Your task to perform on an android device: Show me recent news Image 0: 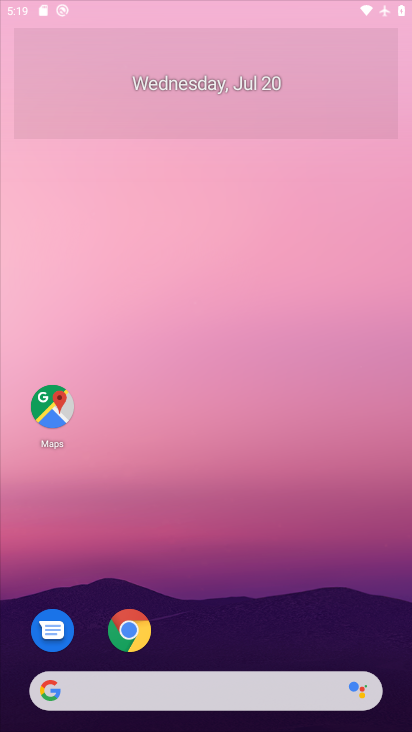
Step 0: press home button
Your task to perform on an android device: Show me recent news Image 1: 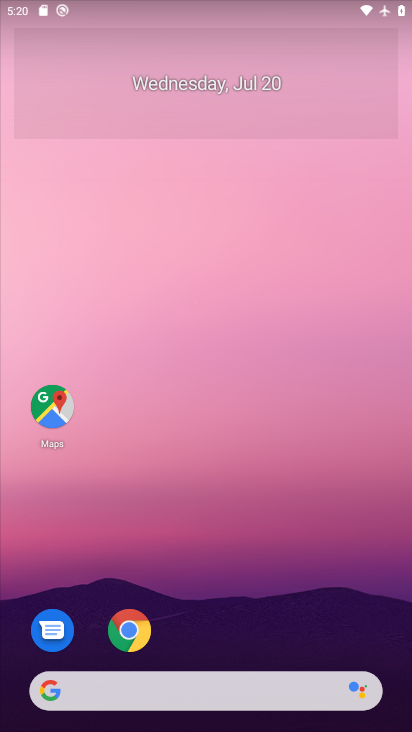
Step 1: click (30, 692)
Your task to perform on an android device: Show me recent news Image 2: 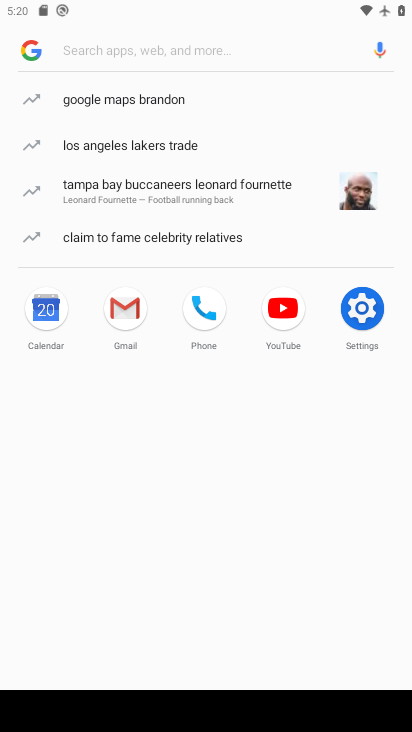
Step 2: type "recent news"
Your task to perform on an android device: Show me recent news Image 3: 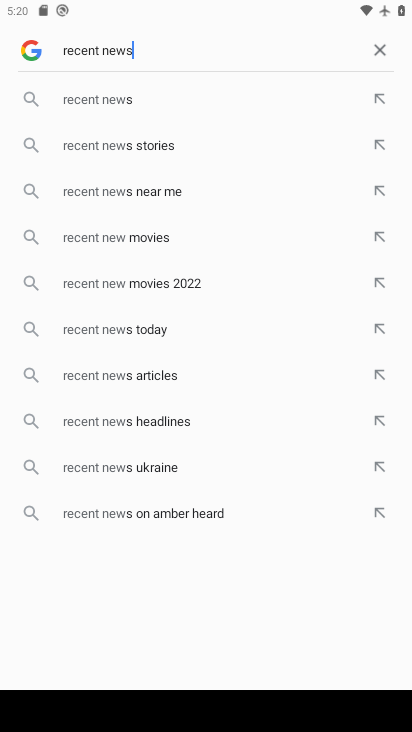
Step 3: press enter
Your task to perform on an android device: Show me recent news Image 4: 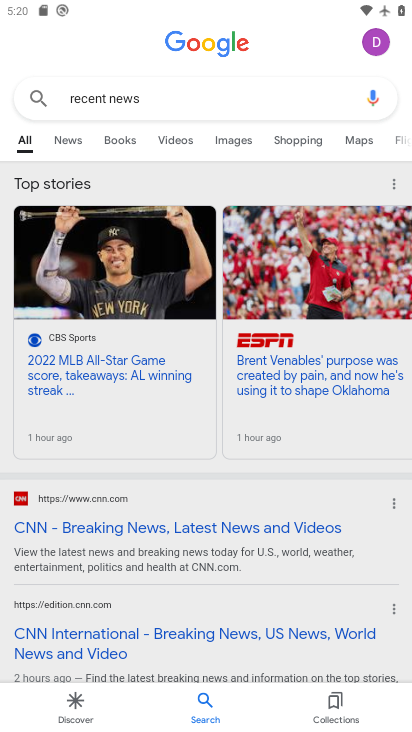
Step 4: task complete